Your task to perform on an android device: find photos in the google photos app Image 0: 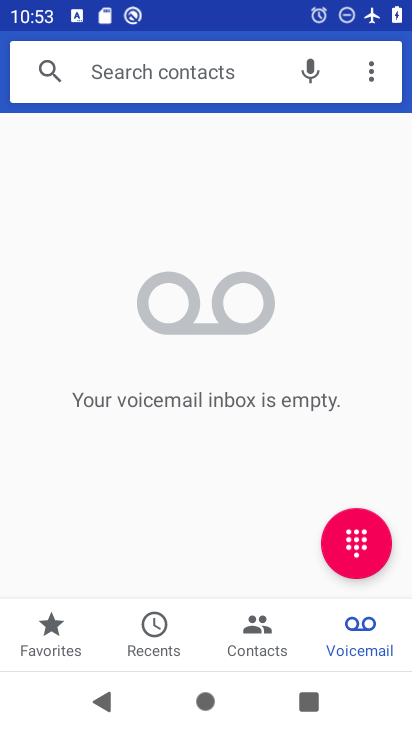
Step 0: press home button
Your task to perform on an android device: find photos in the google photos app Image 1: 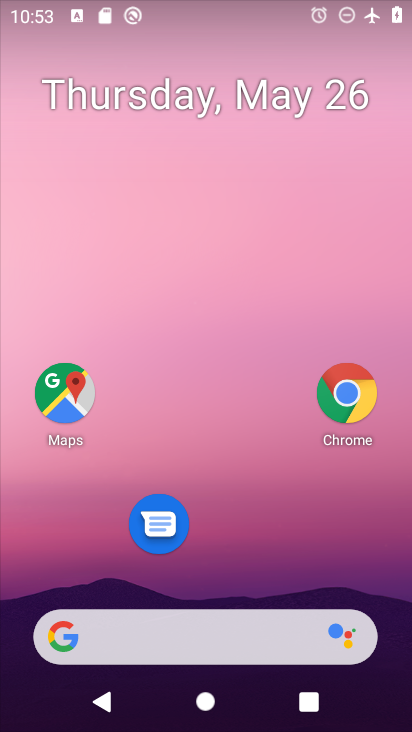
Step 1: drag from (223, 545) to (255, 13)
Your task to perform on an android device: find photos in the google photos app Image 2: 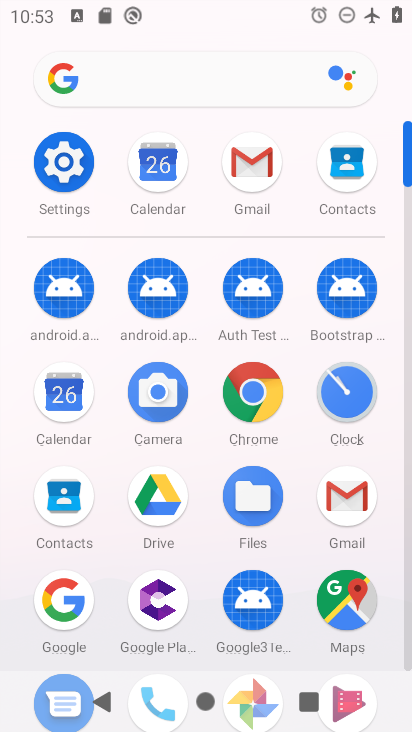
Step 2: drag from (213, 516) to (224, 256)
Your task to perform on an android device: find photos in the google photos app Image 3: 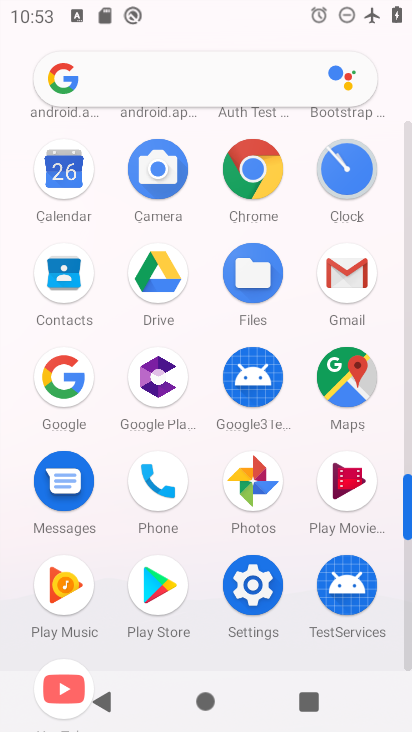
Step 3: click (248, 468)
Your task to perform on an android device: find photos in the google photos app Image 4: 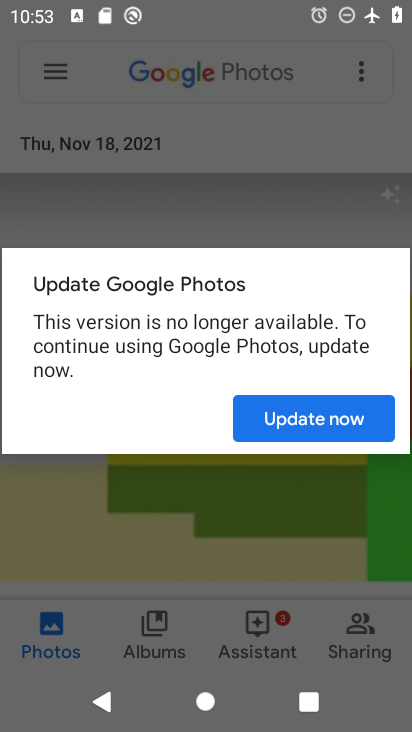
Step 4: click (284, 412)
Your task to perform on an android device: find photos in the google photos app Image 5: 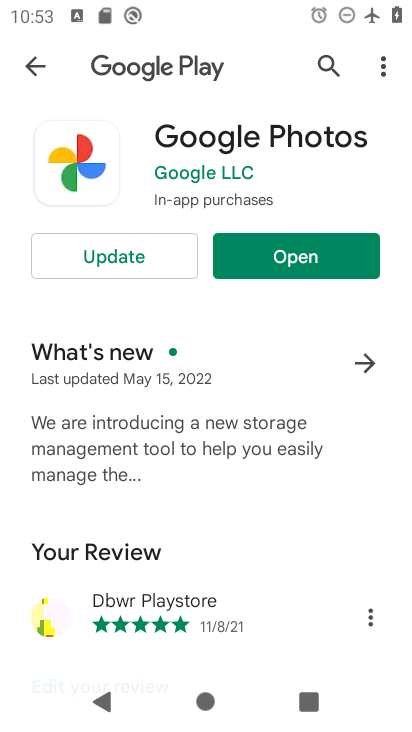
Step 5: click (330, 257)
Your task to perform on an android device: find photos in the google photos app Image 6: 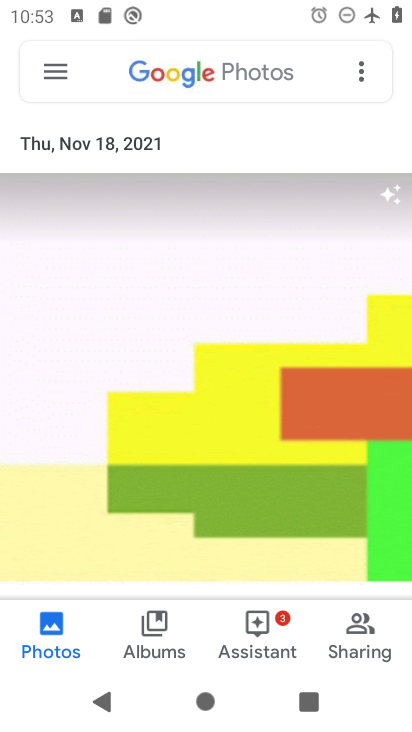
Step 6: task complete